Your task to perform on an android device: change the clock style Image 0: 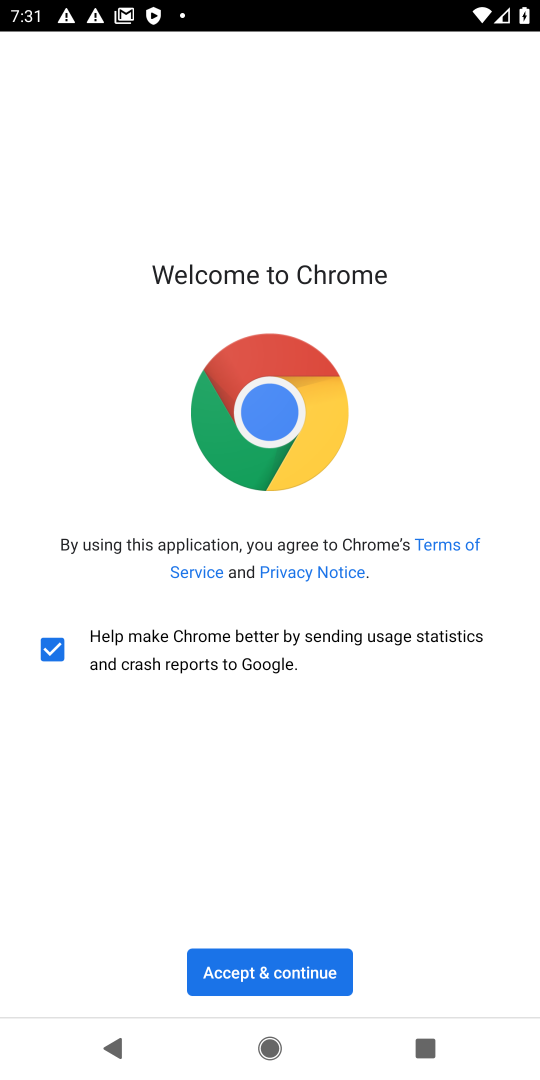
Step 0: press home button
Your task to perform on an android device: change the clock style Image 1: 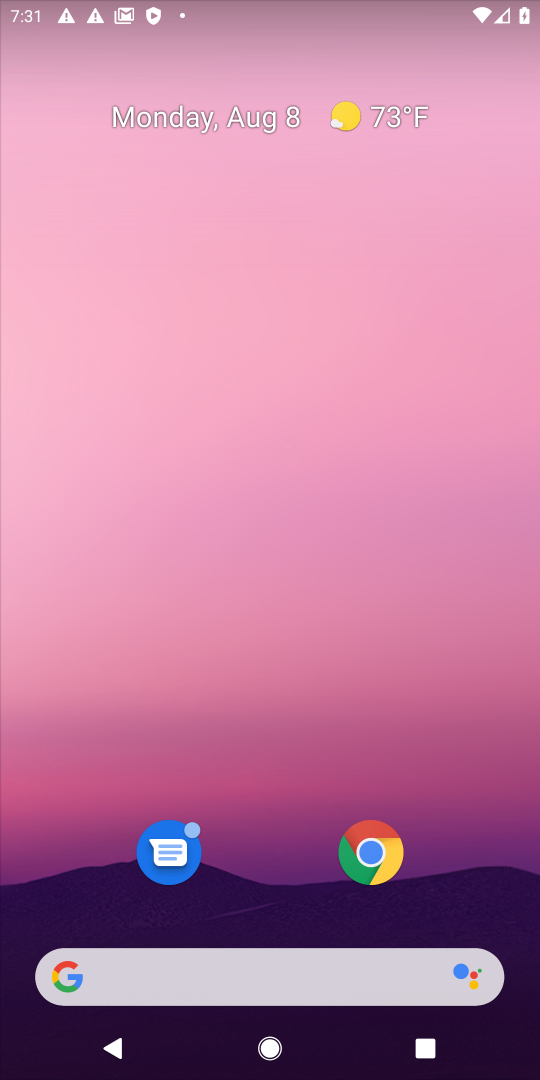
Step 1: drag from (447, 716) to (526, 501)
Your task to perform on an android device: change the clock style Image 2: 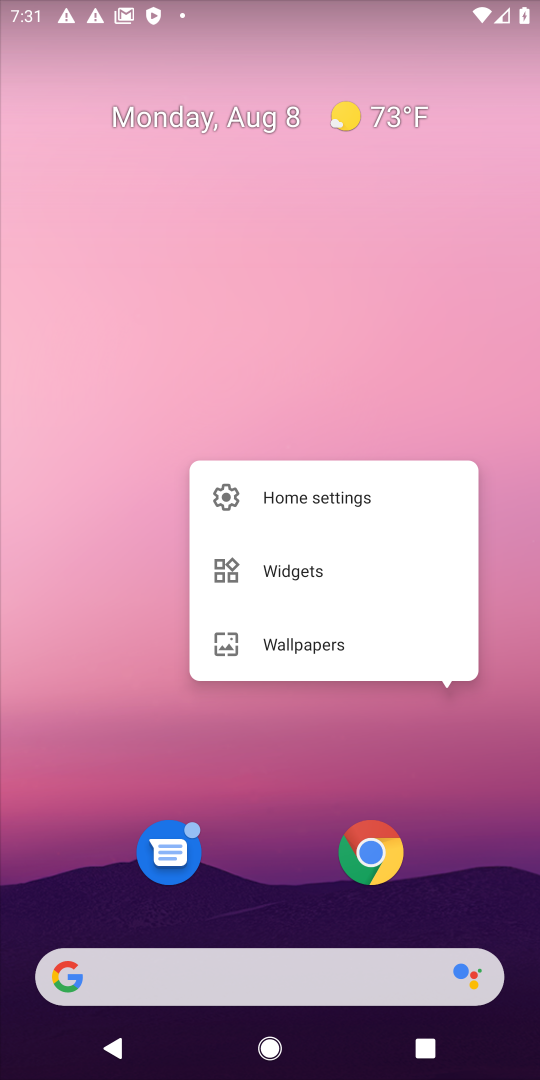
Step 2: drag from (17, 966) to (95, 177)
Your task to perform on an android device: change the clock style Image 3: 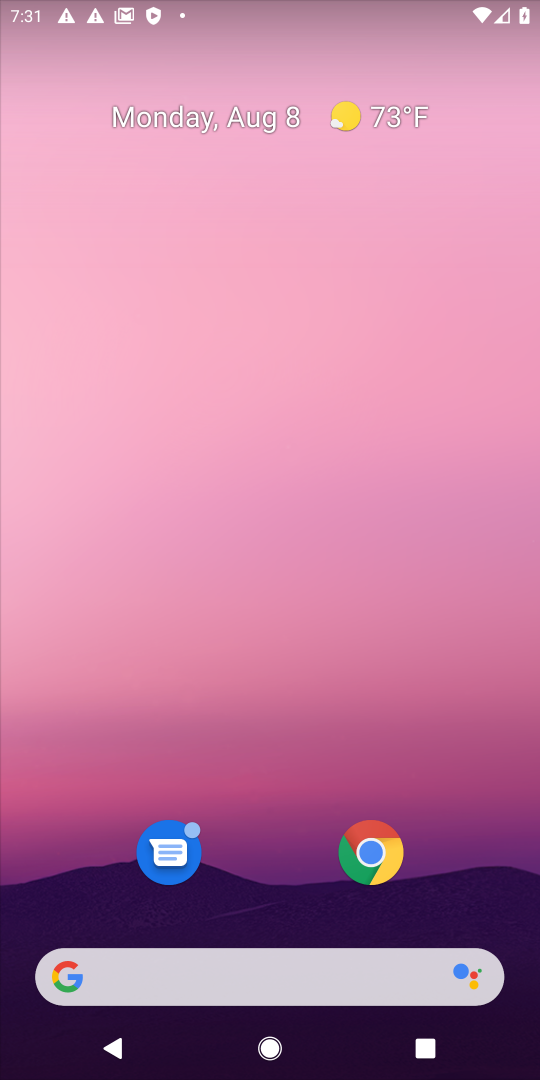
Step 3: drag from (80, 849) to (414, 10)
Your task to perform on an android device: change the clock style Image 4: 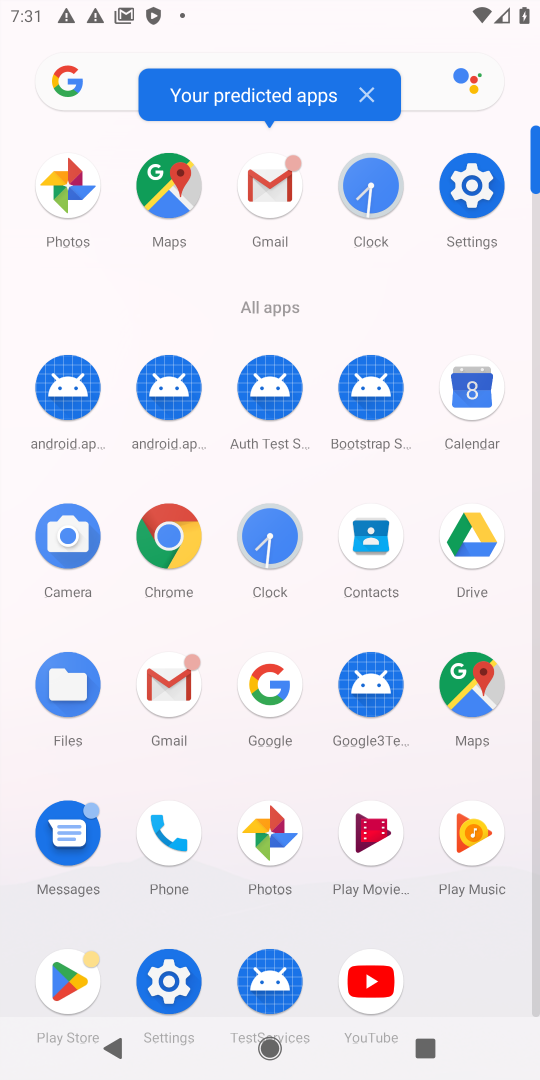
Step 4: click (382, 222)
Your task to perform on an android device: change the clock style Image 5: 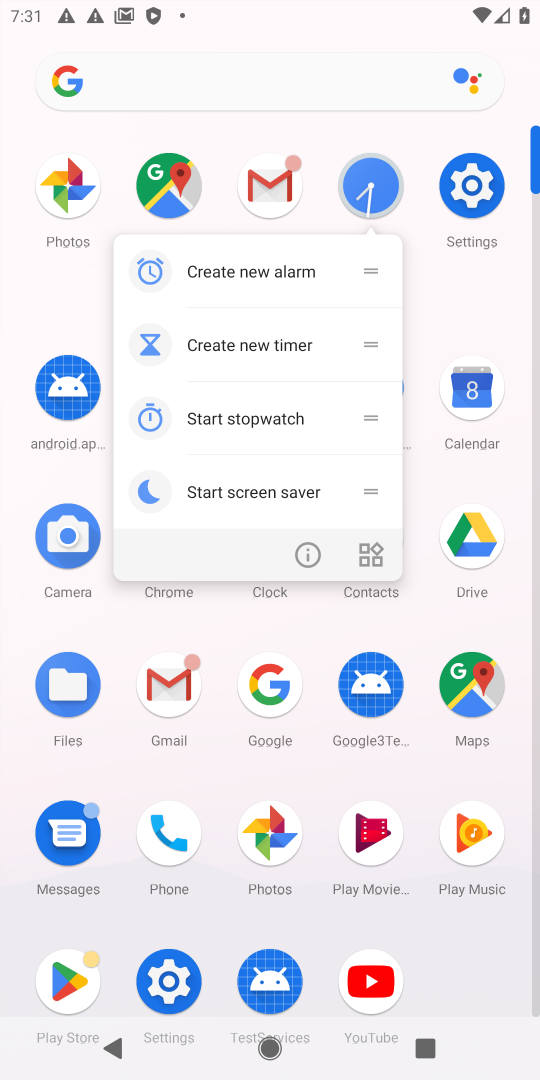
Step 5: click (370, 199)
Your task to perform on an android device: change the clock style Image 6: 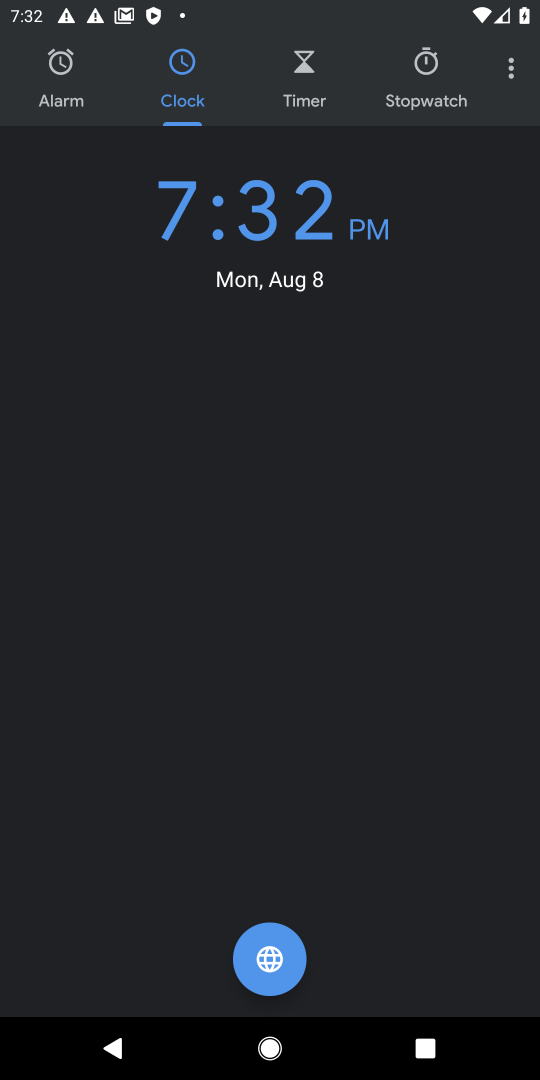
Step 6: click (512, 73)
Your task to perform on an android device: change the clock style Image 7: 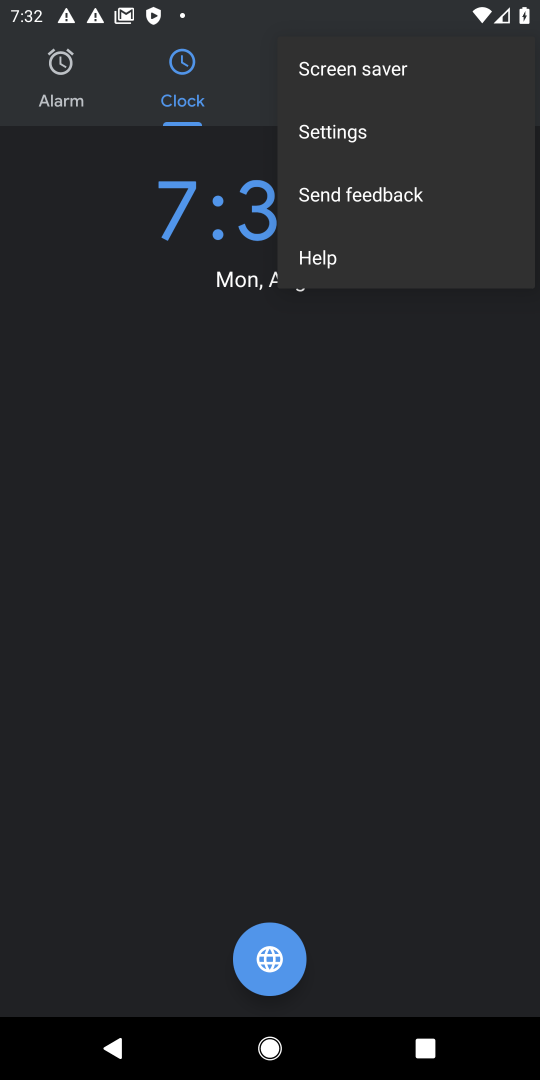
Step 7: click (377, 120)
Your task to perform on an android device: change the clock style Image 8: 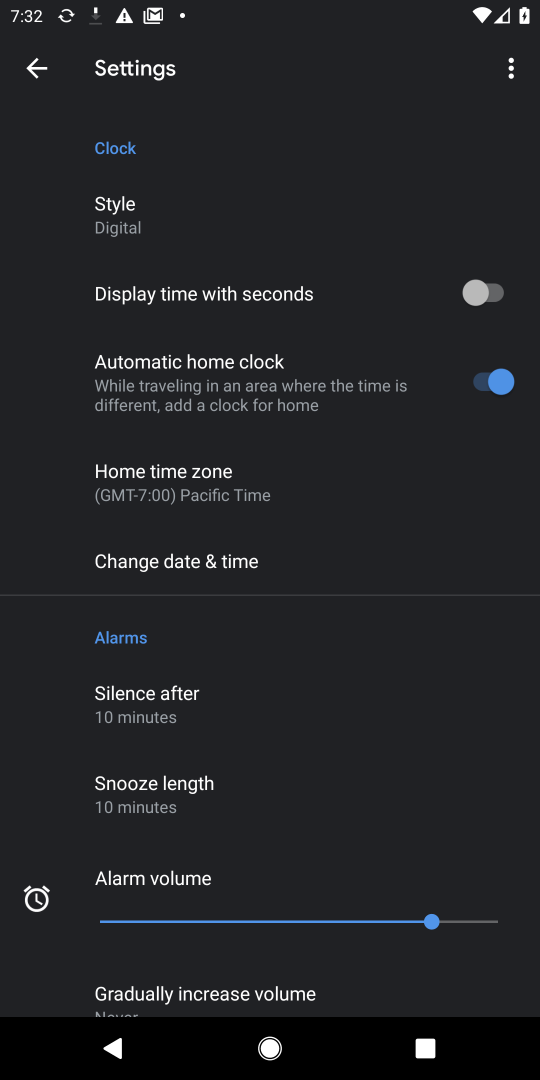
Step 8: click (135, 221)
Your task to perform on an android device: change the clock style Image 9: 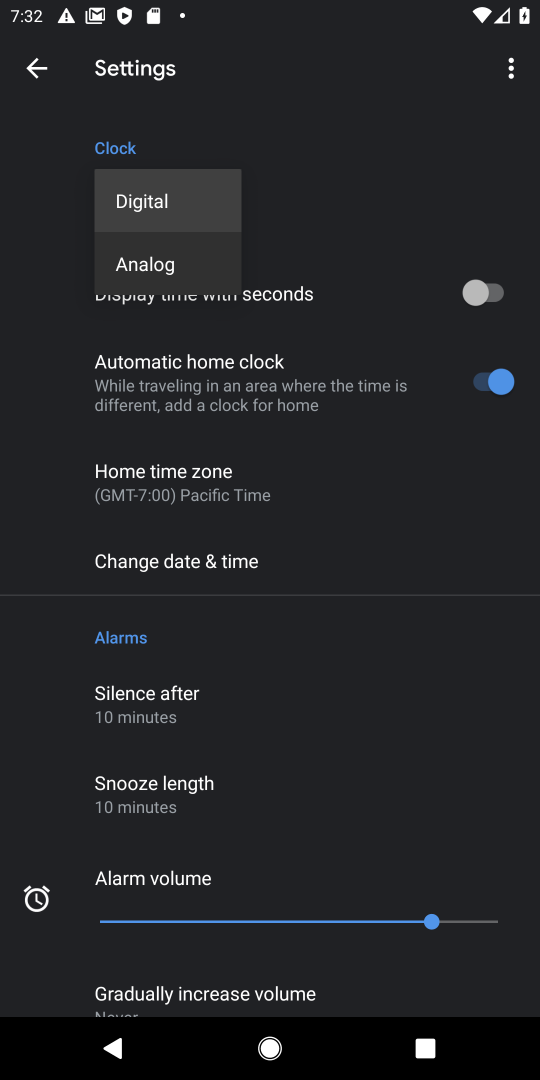
Step 9: click (104, 284)
Your task to perform on an android device: change the clock style Image 10: 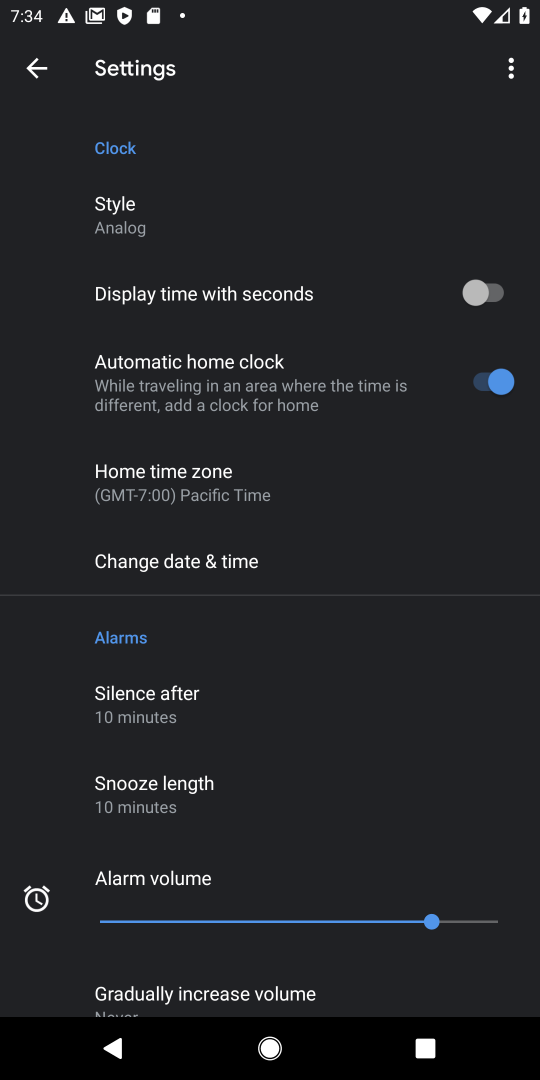
Step 10: task complete